Your task to perform on an android device: Go to internet settings Image 0: 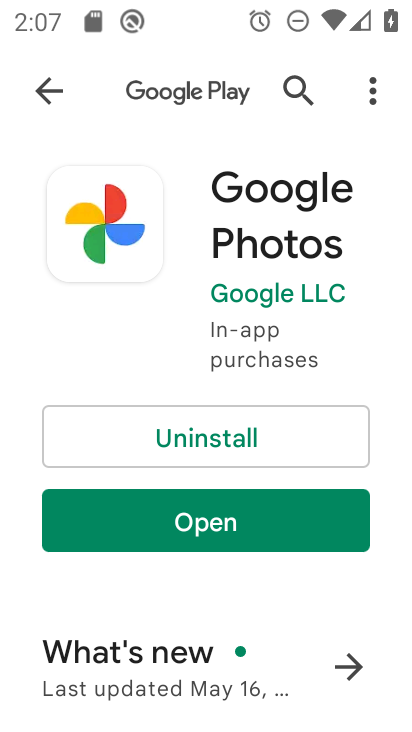
Step 0: press home button
Your task to perform on an android device: Go to internet settings Image 1: 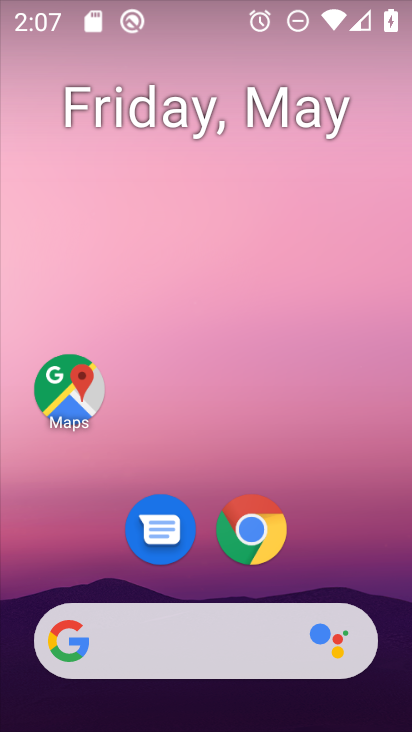
Step 1: drag from (398, 669) to (395, 398)
Your task to perform on an android device: Go to internet settings Image 2: 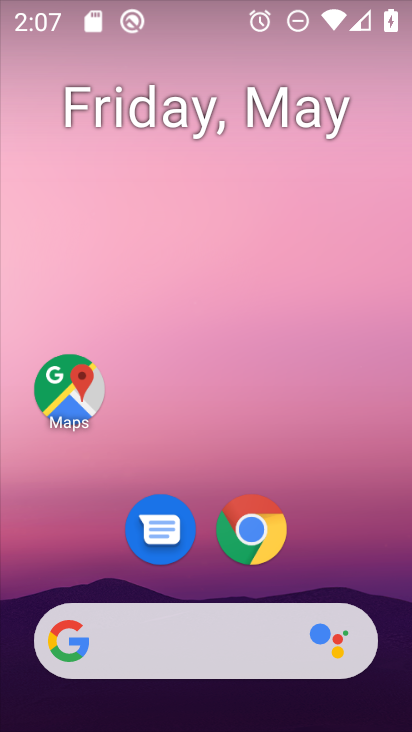
Step 2: drag from (393, 678) to (355, 198)
Your task to perform on an android device: Go to internet settings Image 3: 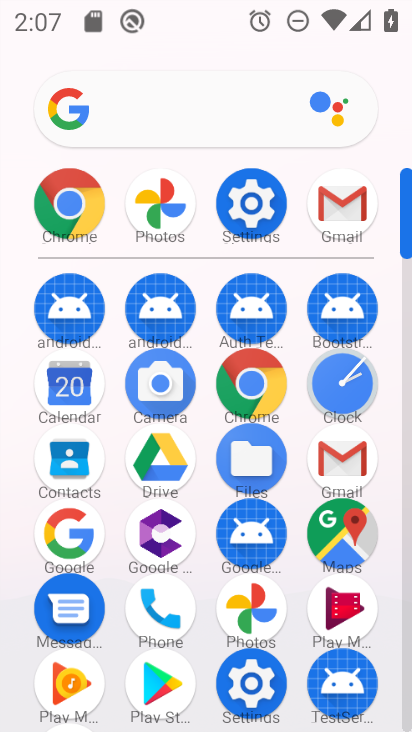
Step 3: click (234, 666)
Your task to perform on an android device: Go to internet settings Image 4: 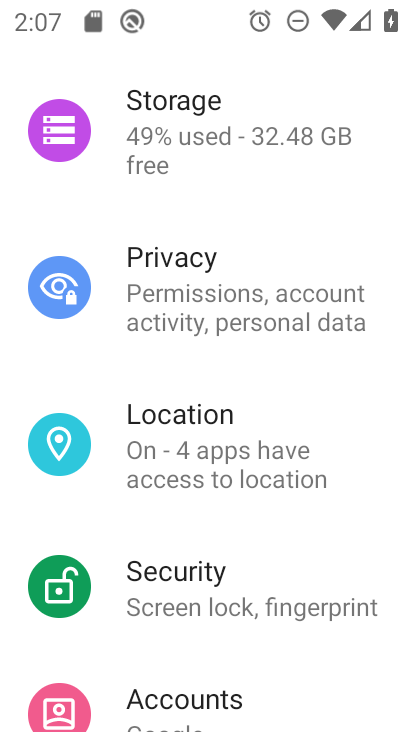
Step 4: drag from (342, 99) to (313, 565)
Your task to perform on an android device: Go to internet settings Image 5: 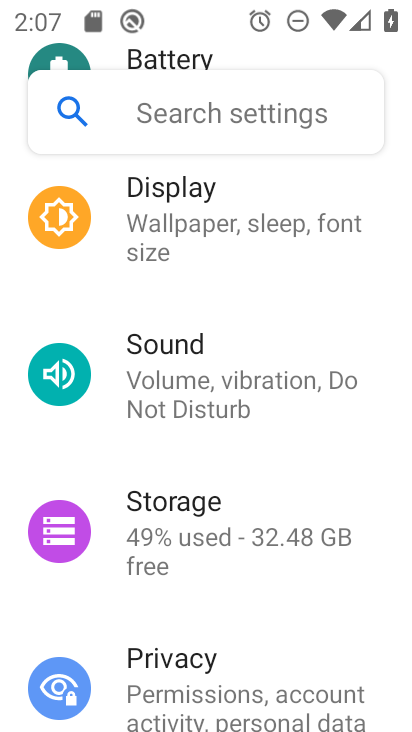
Step 5: drag from (335, 172) to (334, 704)
Your task to perform on an android device: Go to internet settings Image 6: 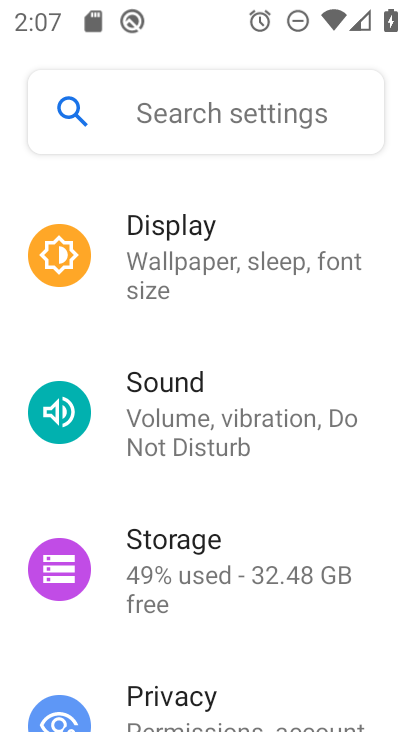
Step 6: drag from (327, 303) to (355, 694)
Your task to perform on an android device: Go to internet settings Image 7: 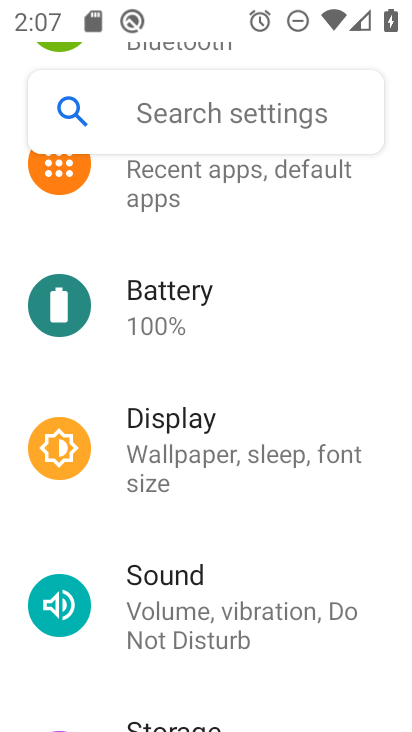
Step 7: drag from (338, 208) to (340, 686)
Your task to perform on an android device: Go to internet settings Image 8: 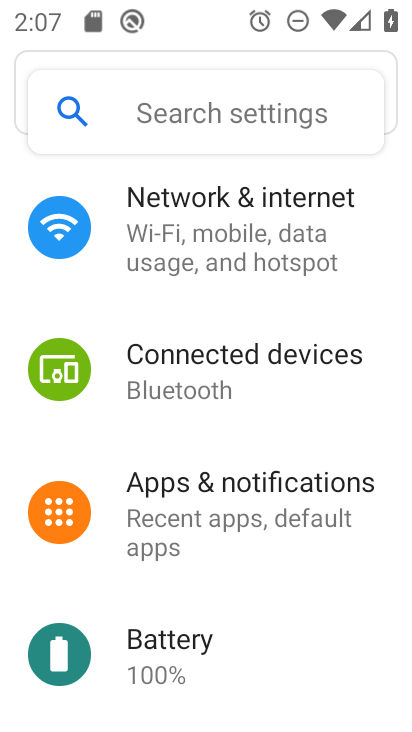
Step 8: click (229, 218)
Your task to perform on an android device: Go to internet settings Image 9: 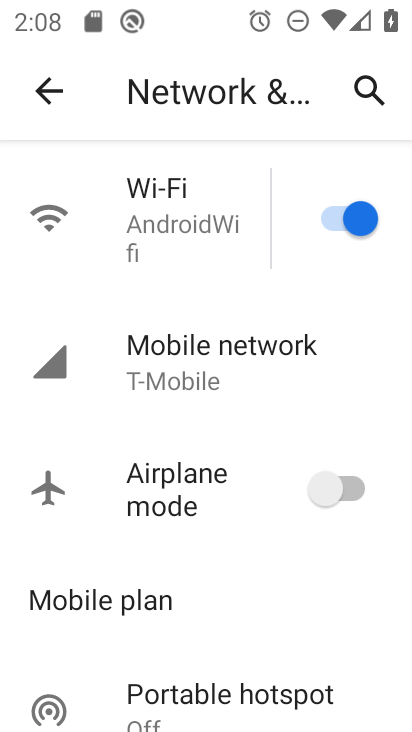
Step 9: drag from (225, 644) to (232, 325)
Your task to perform on an android device: Go to internet settings Image 10: 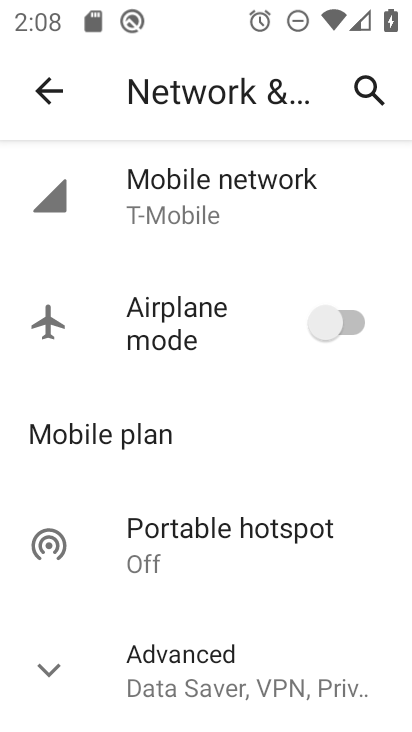
Step 10: drag from (249, 663) to (266, 363)
Your task to perform on an android device: Go to internet settings Image 11: 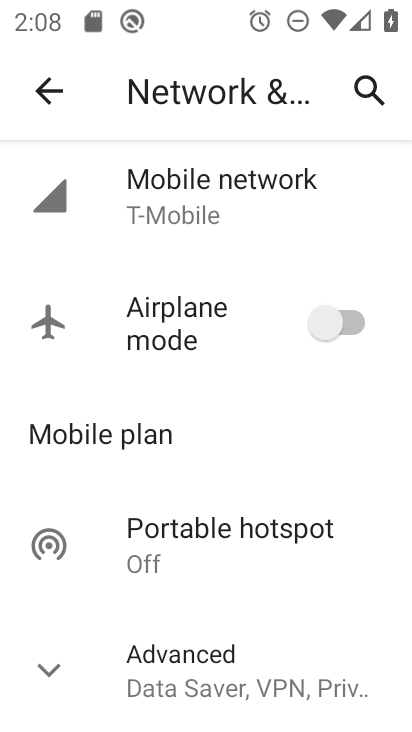
Step 11: drag from (299, 562) to (275, 262)
Your task to perform on an android device: Go to internet settings Image 12: 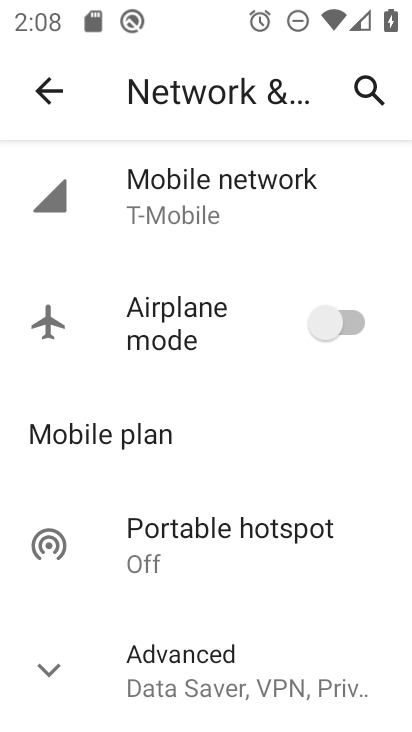
Step 12: click (200, 190)
Your task to perform on an android device: Go to internet settings Image 13: 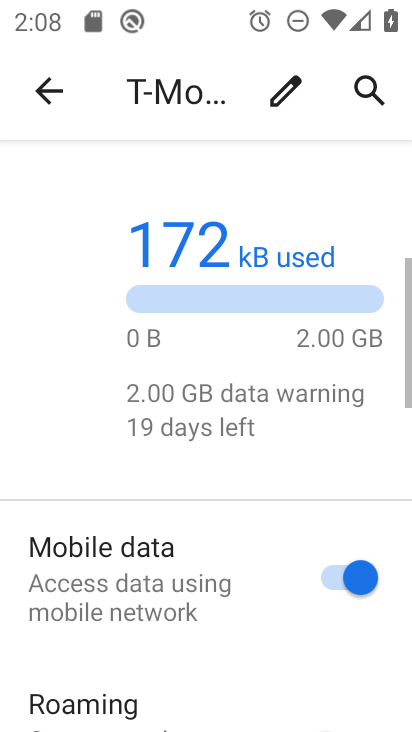
Step 13: task complete